Your task to perform on an android device: Open sound settings Image 0: 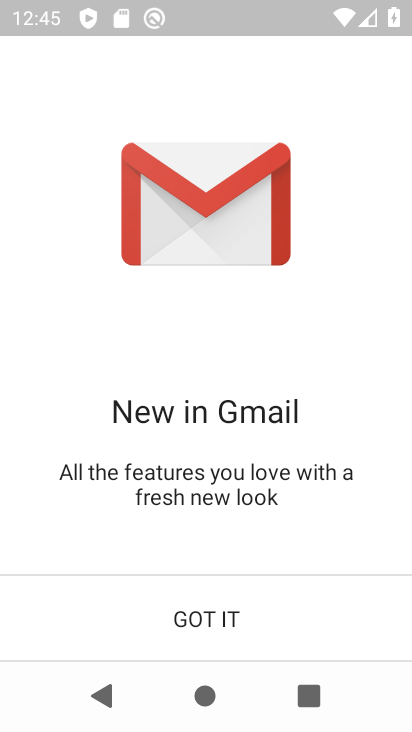
Step 0: press home button
Your task to perform on an android device: Open sound settings Image 1: 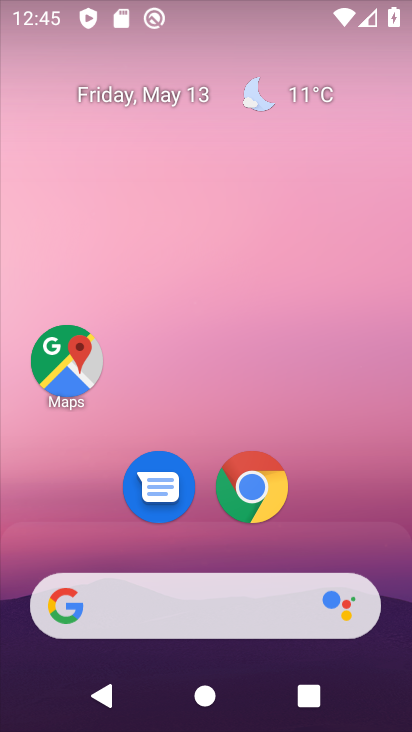
Step 1: drag from (318, 373) to (318, 120)
Your task to perform on an android device: Open sound settings Image 2: 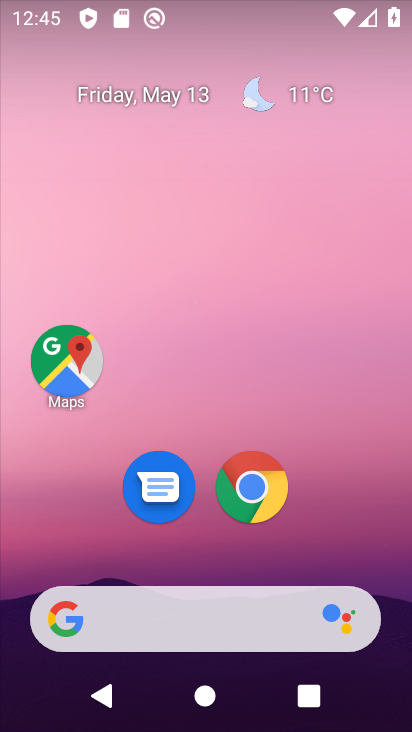
Step 2: drag from (351, 516) to (333, 92)
Your task to perform on an android device: Open sound settings Image 3: 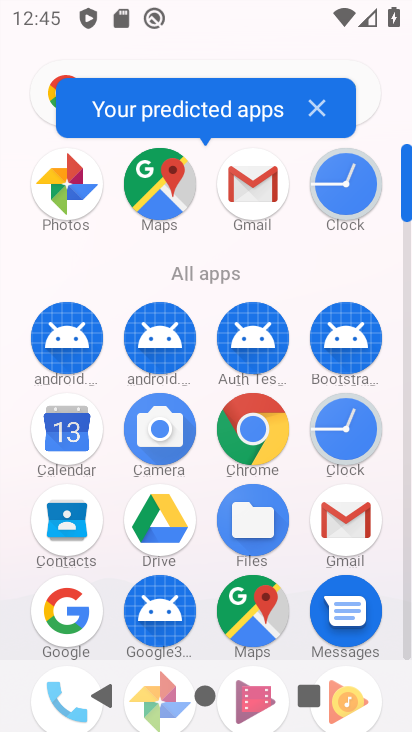
Step 3: drag from (200, 592) to (243, 238)
Your task to perform on an android device: Open sound settings Image 4: 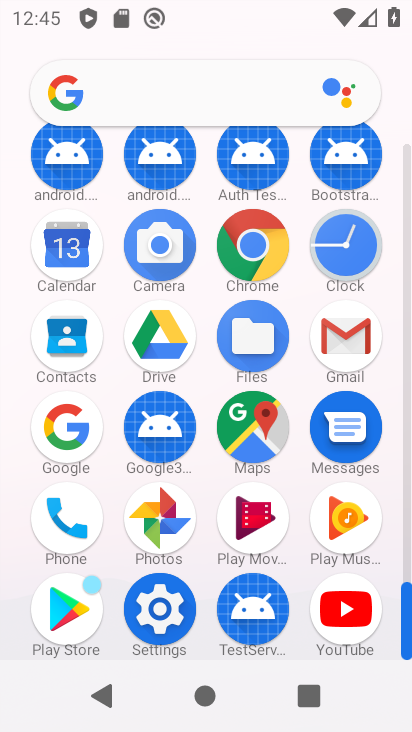
Step 4: click (167, 619)
Your task to perform on an android device: Open sound settings Image 5: 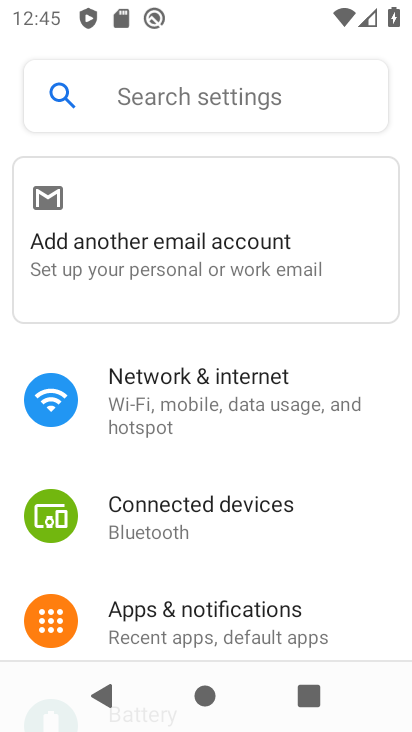
Step 5: drag from (227, 629) to (230, 387)
Your task to perform on an android device: Open sound settings Image 6: 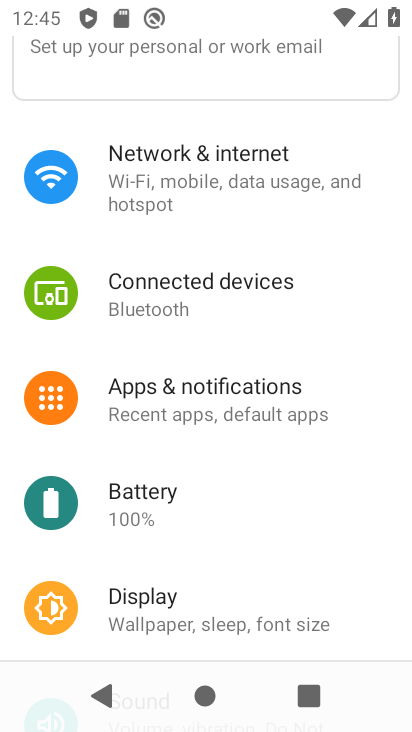
Step 6: drag from (250, 594) to (273, 243)
Your task to perform on an android device: Open sound settings Image 7: 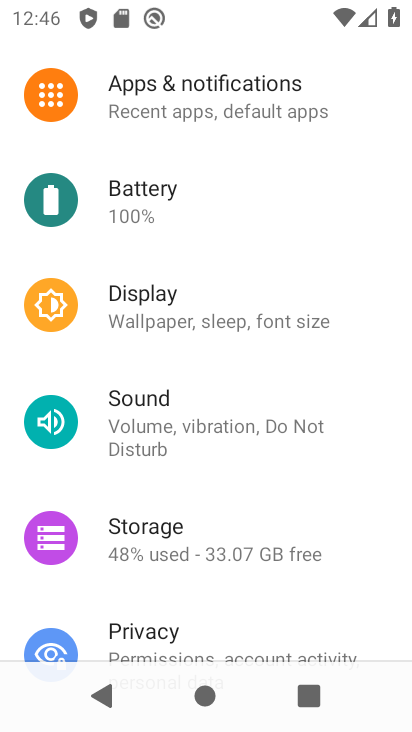
Step 7: click (245, 417)
Your task to perform on an android device: Open sound settings Image 8: 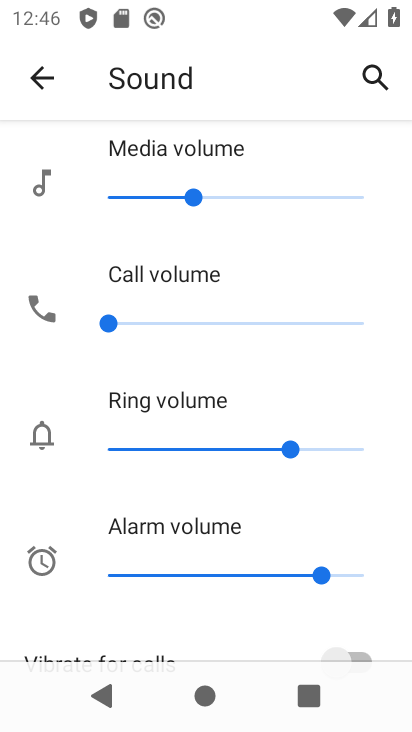
Step 8: task complete